Your task to perform on an android device: clear history in the chrome app Image 0: 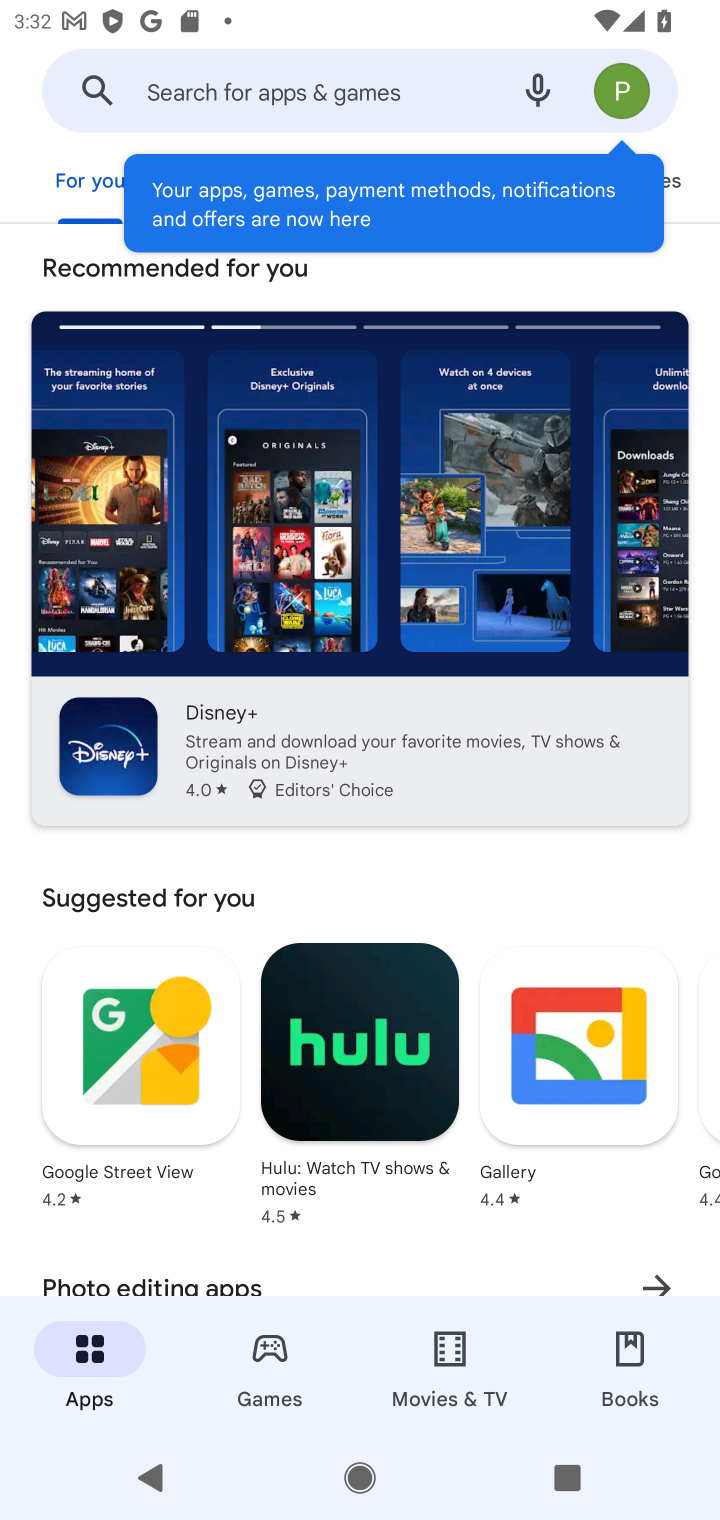
Step 0: press home button
Your task to perform on an android device: clear history in the chrome app Image 1: 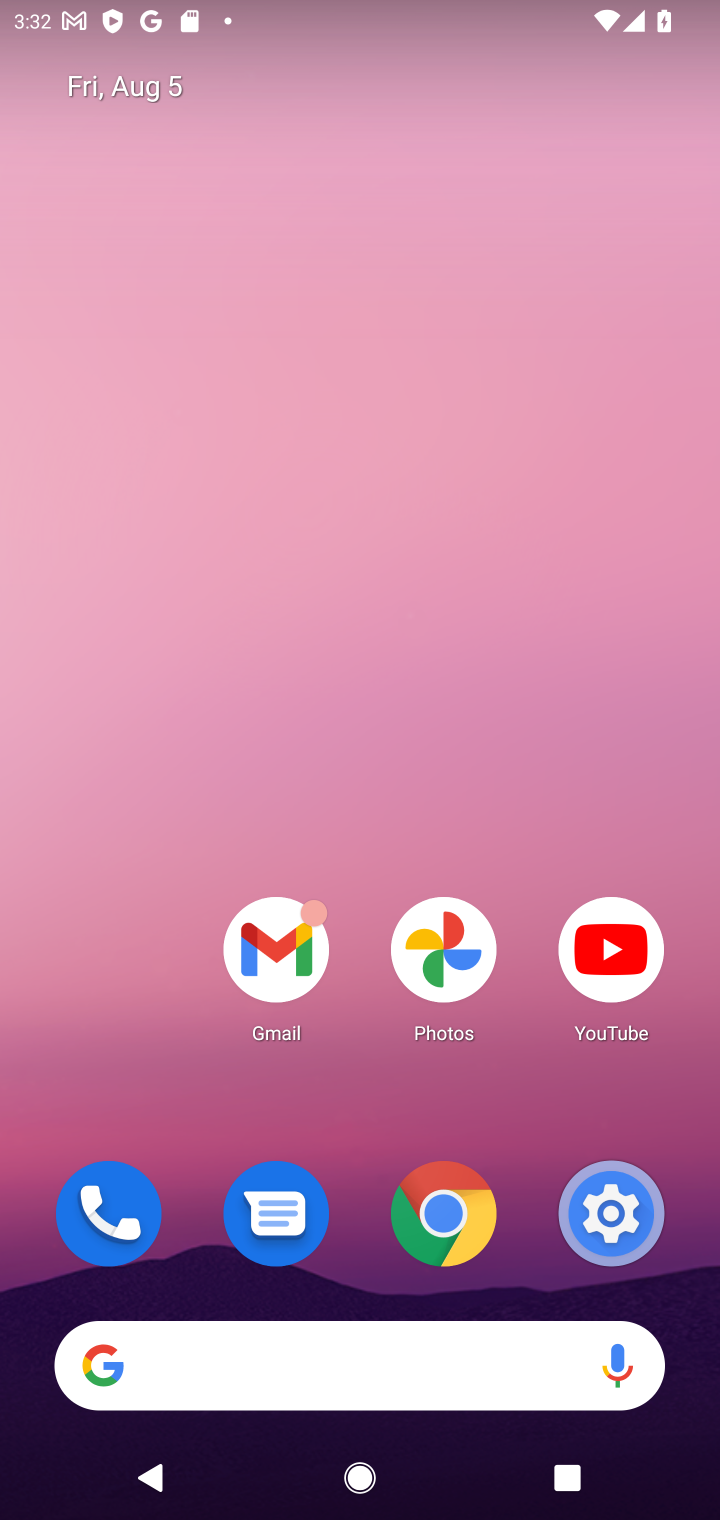
Step 1: click (456, 1190)
Your task to perform on an android device: clear history in the chrome app Image 2: 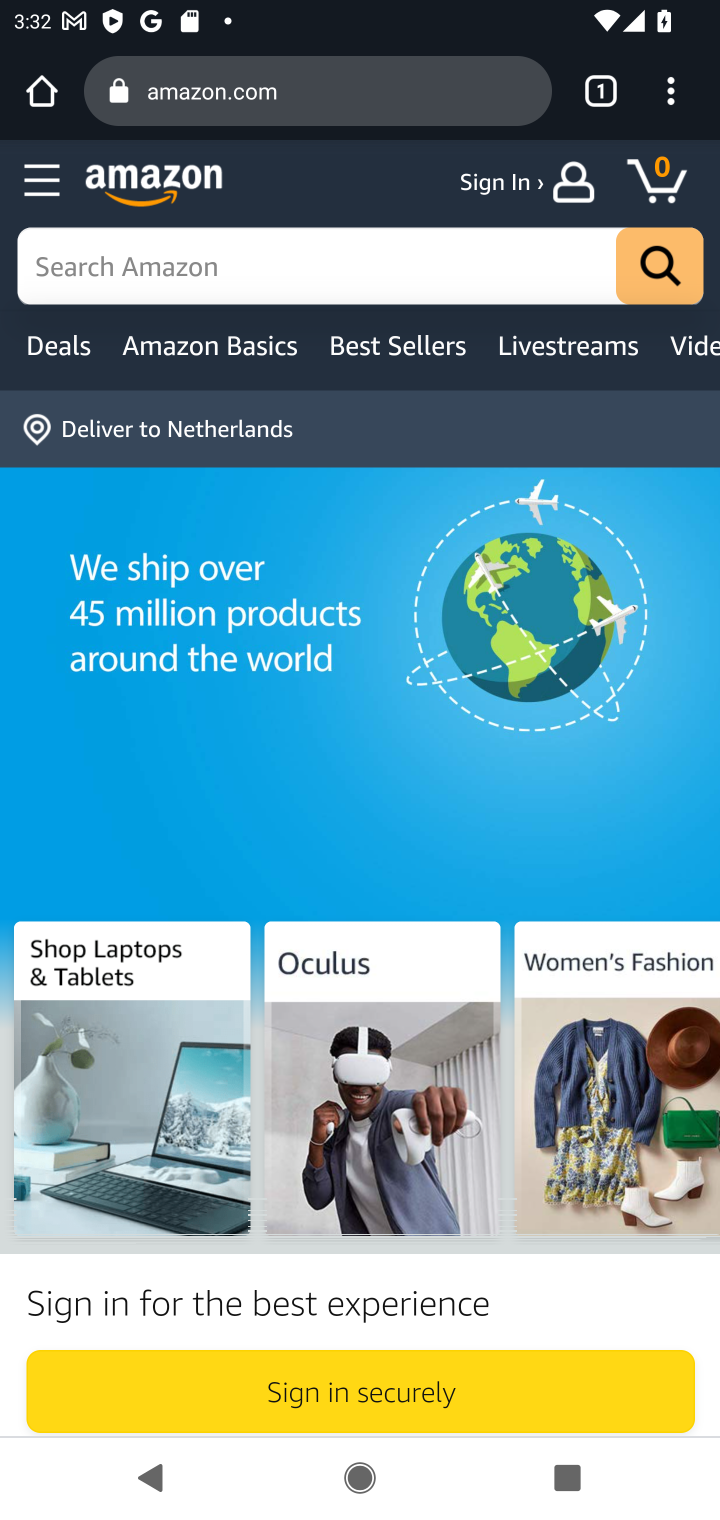
Step 2: click (672, 104)
Your task to perform on an android device: clear history in the chrome app Image 3: 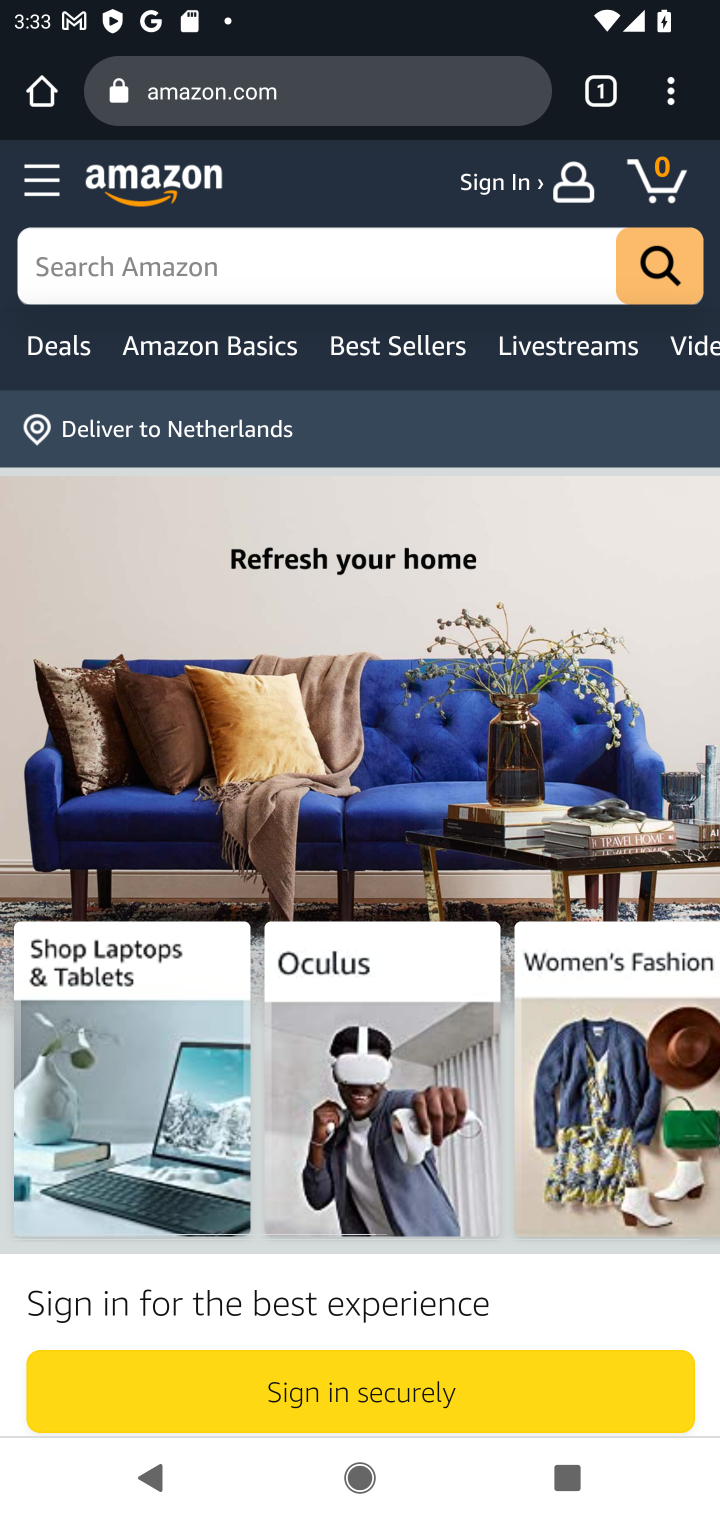
Step 3: click (672, 104)
Your task to perform on an android device: clear history in the chrome app Image 4: 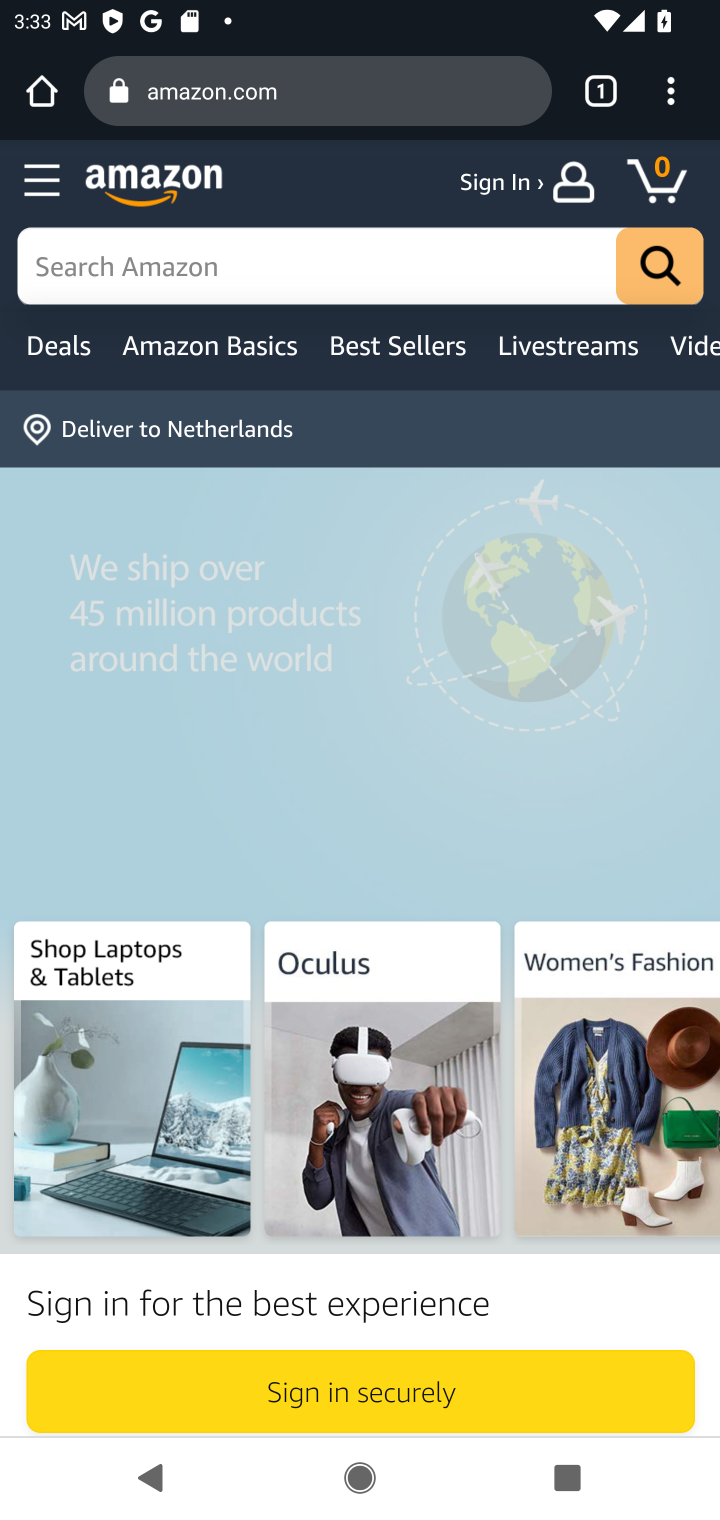
Step 4: click (665, 108)
Your task to perform on an android device: clear history in the chrome app Image 5: 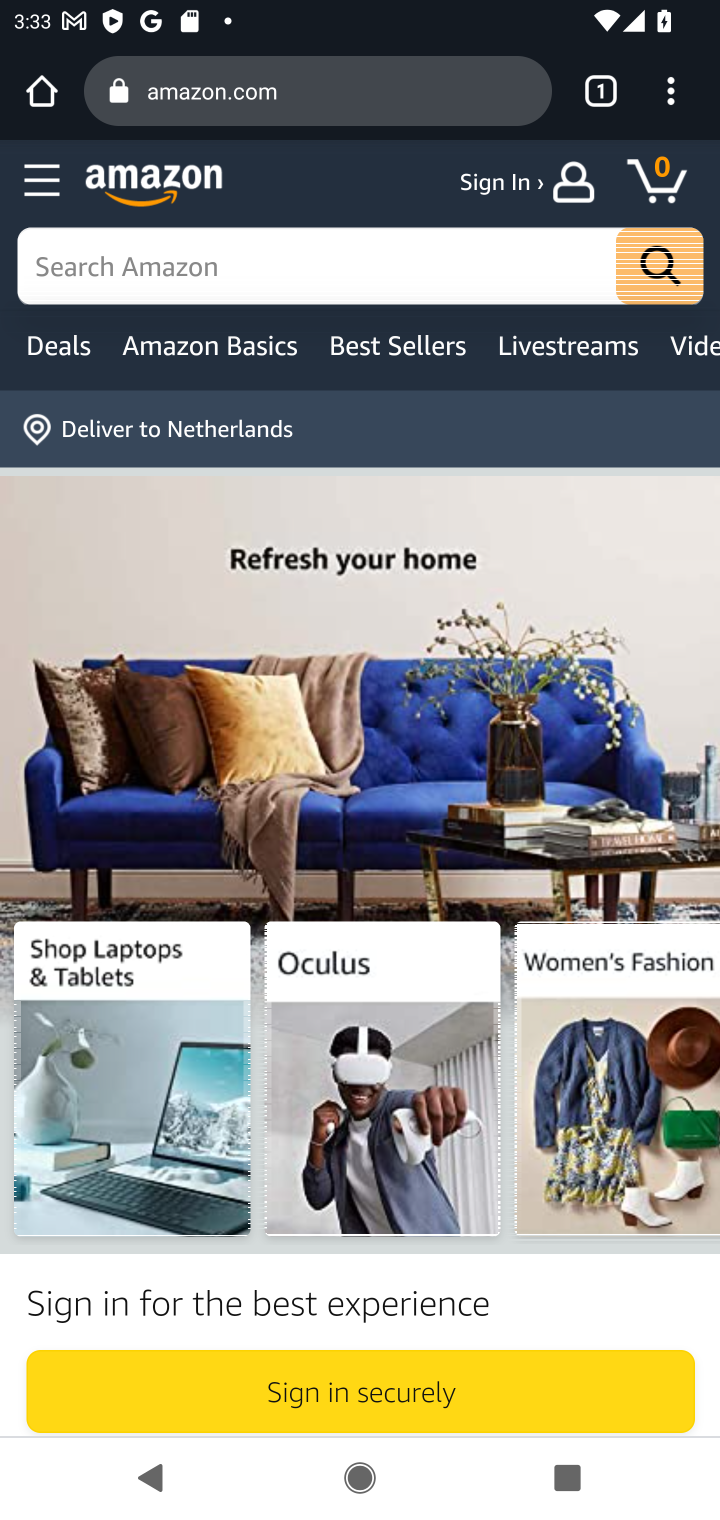
Step 5: click (658, 89)
Your task to perform on an android device: clear history in the chrome app Image 6: 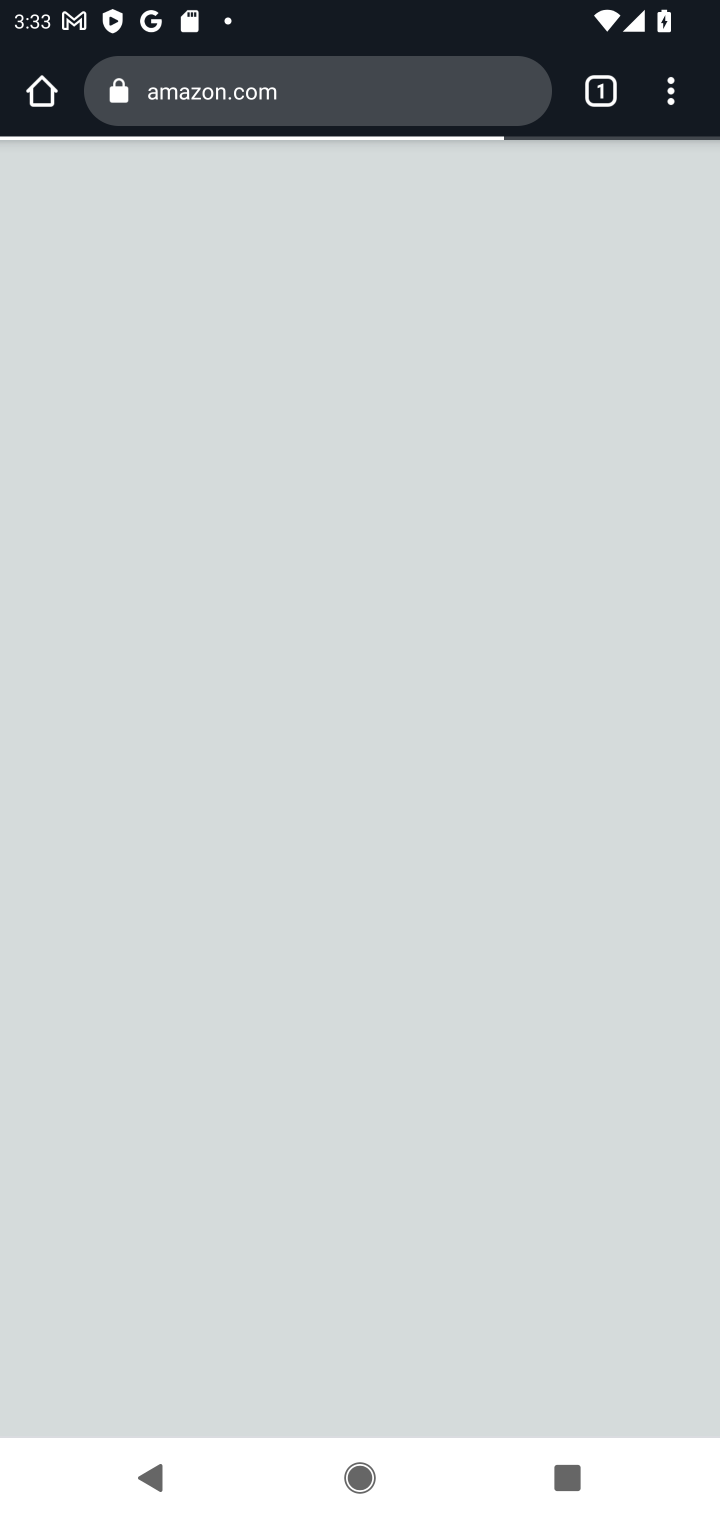
Step 6: click (658, 89)
Your task to perform on an android device: clear history in the chrome app Image 7: 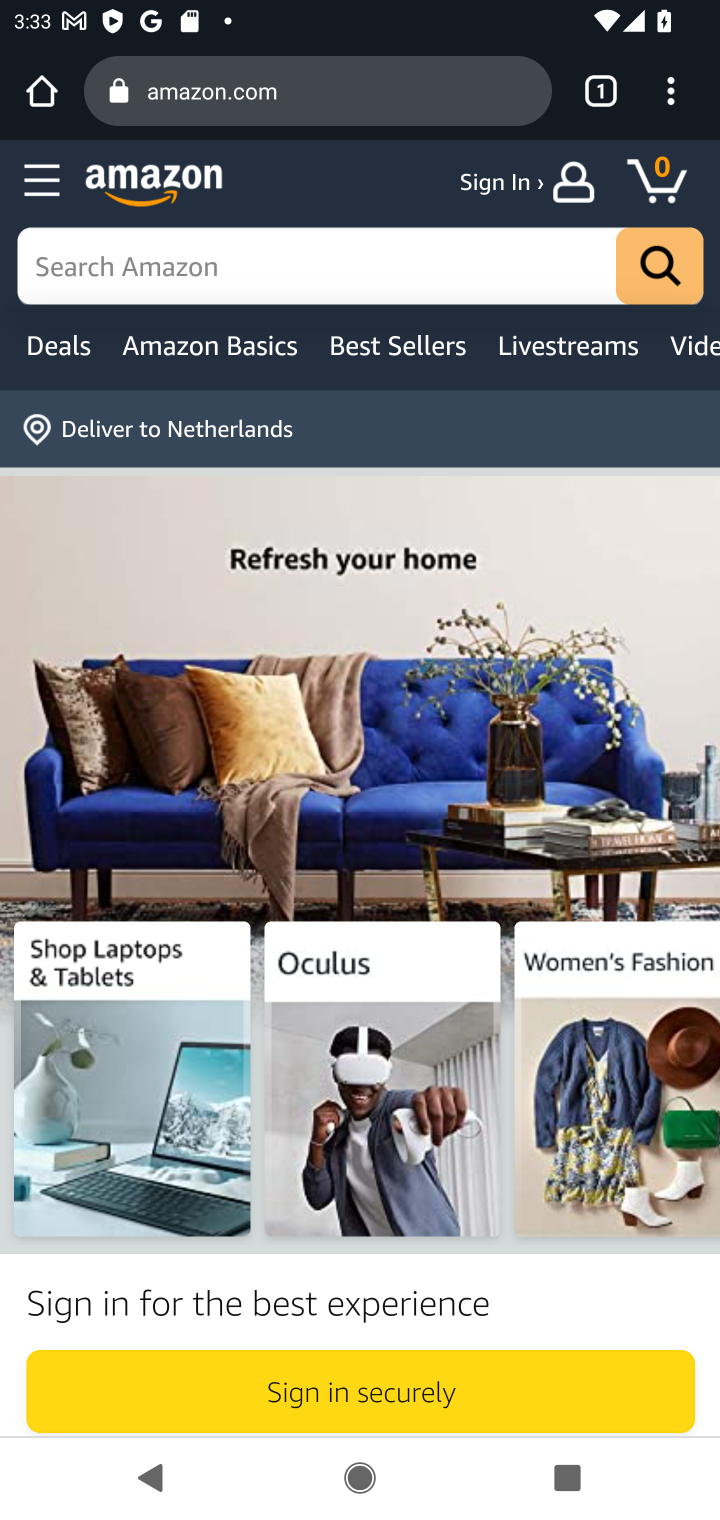
Step 7: task complete